Your task to perform on an android device: turn off notifications in google photos Image 0: 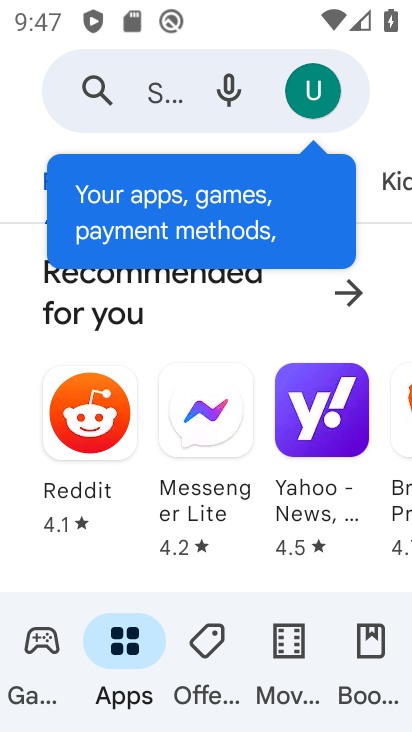
Step 0: press home button
Your task to perform on an android device: turn off notifications in google photos Image 1: 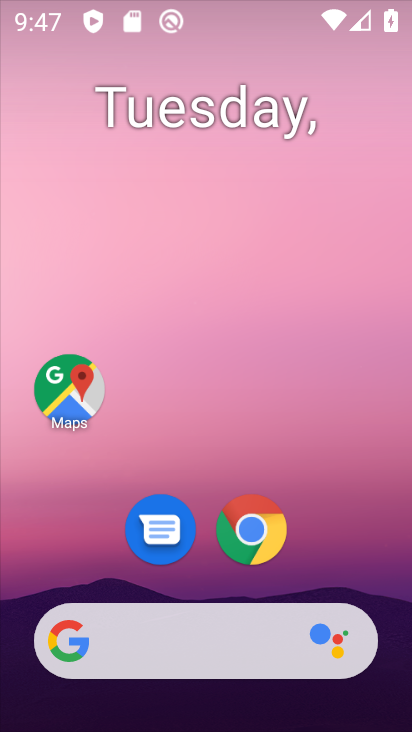
Step 1: click (110, 75)
Your task to perform on an android device: turn off notifications in google photos Image 2: 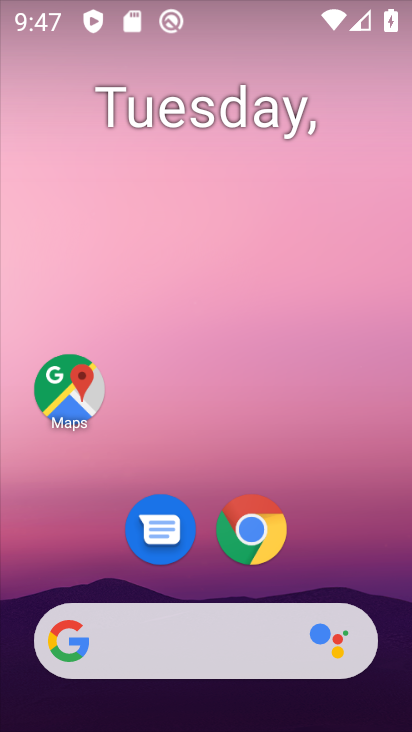
Step 2: drag from (208, 382) to (234, 64)
Your task to perform on an android device: turn off notifications in google photos Image 3: 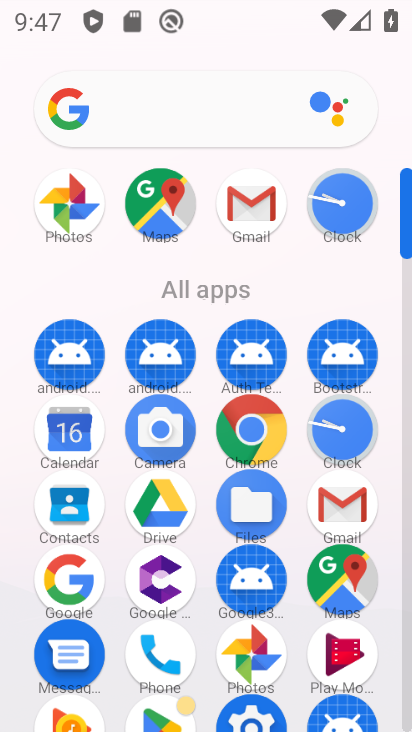
Step 3: click (68, 193)
Your task to perform on an android device: turn off notifications in google photos Image 4: 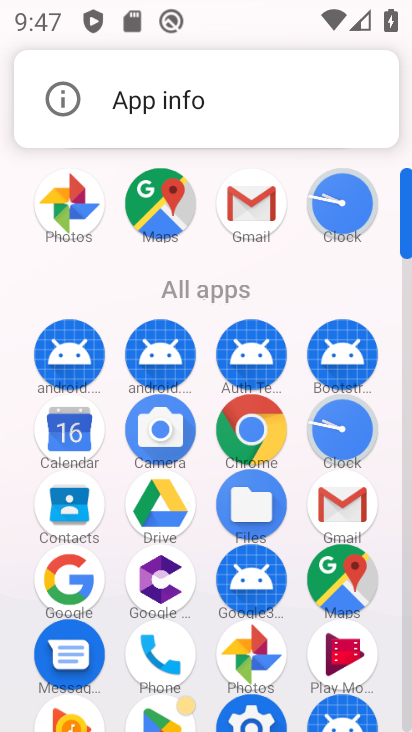
Step 4: click (67, 236)
Your task to perform on an android device: turn off notifications in google photos Image 5: 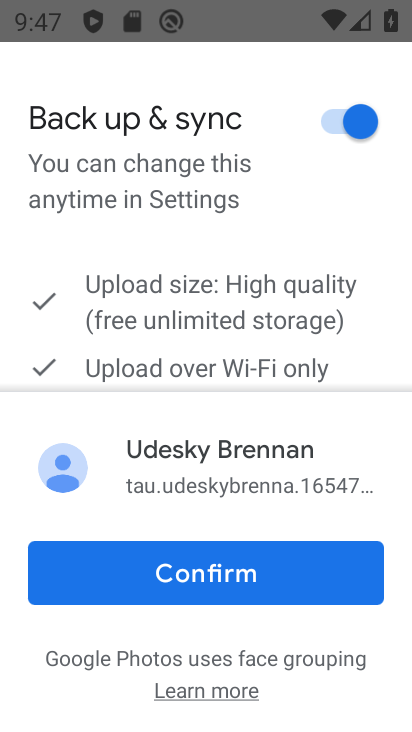
Step 5: click (206, 570)
Your task to perform on an android device: turn off notifications in google photos Image 6: 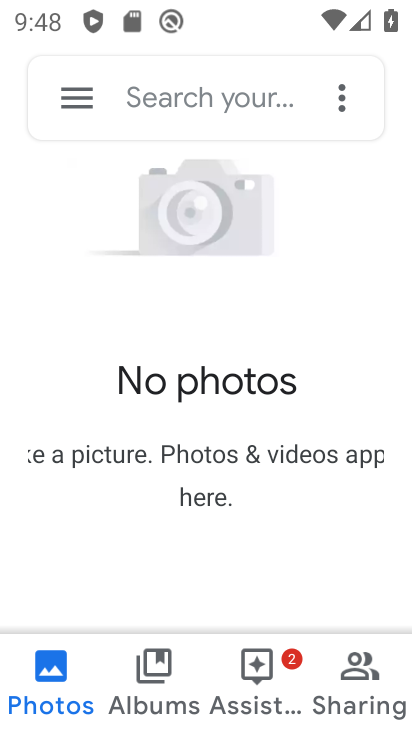
Step 6: click (65, 89)
Your task to perform on an android device: turn off notifications in google photos Image 7: 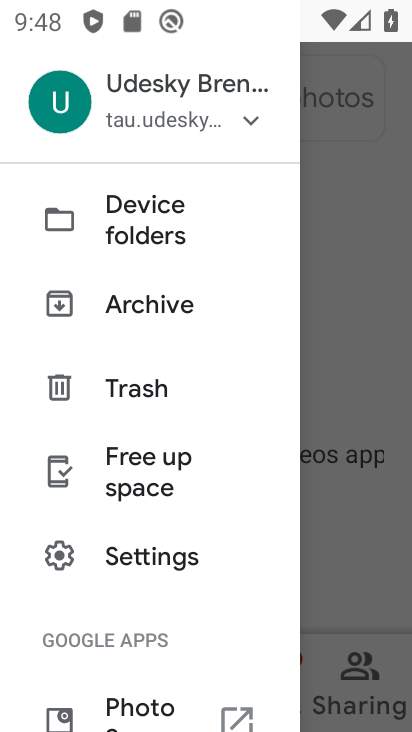
Step 7: drag from (181, 537) to (209, 180)
Your task to perform on an android device: turn off notifications in google photos Image 8: 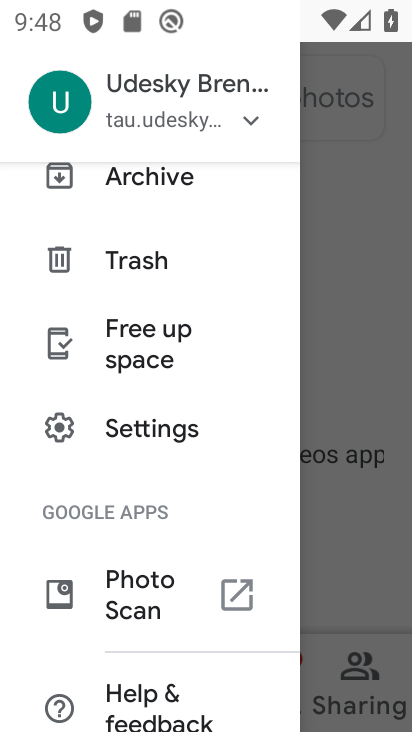
Step 8: drag from (154, 624) to (142, 203)
Your task to perform on an android device: turn off notifications in google photos Image 9: 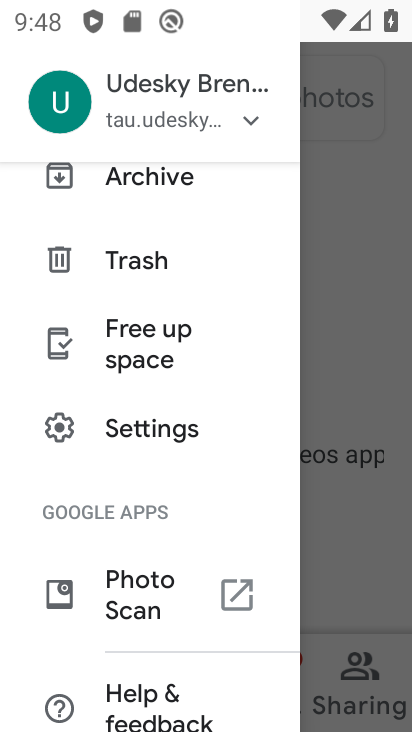
Step 9: click (121, 420)
Your task to perform on an android device: turn off notifications in google photos Image 10: 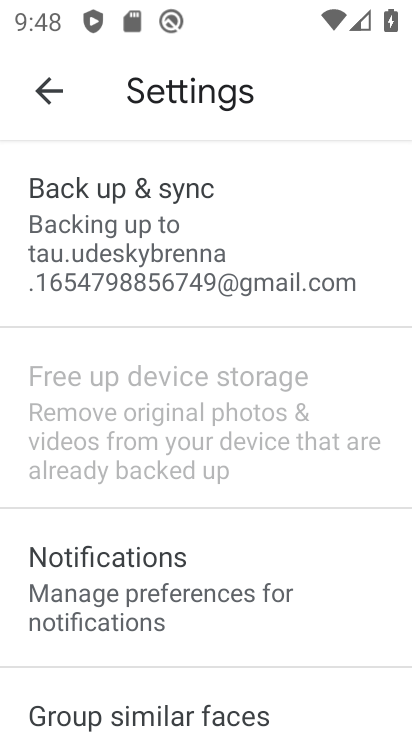
Step 10: drag from (141, 463) to (145, 215)
Your task to perform on an android device: turn off notifications in google photos Image 11: 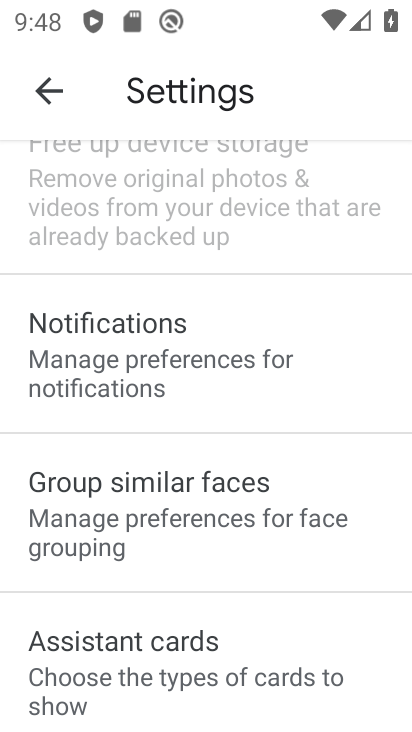
Step 11: click (115, 340)
Your task to perform on an android device: turn off notifications in google photos Image 12: 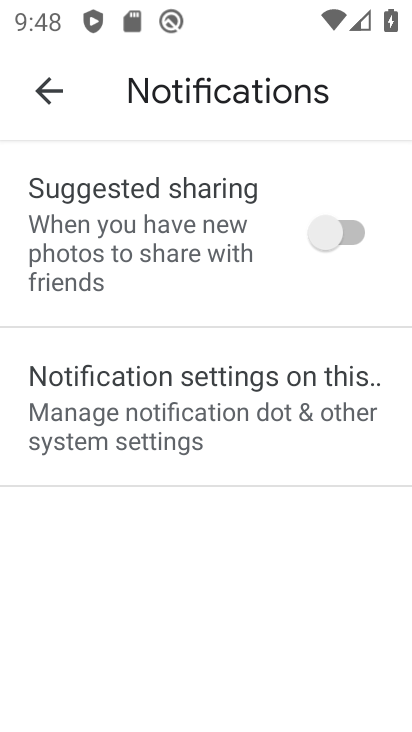
Step 12: click (162, 392)
Your task to perform on an android device: turn off notifications in google photos Image 13: 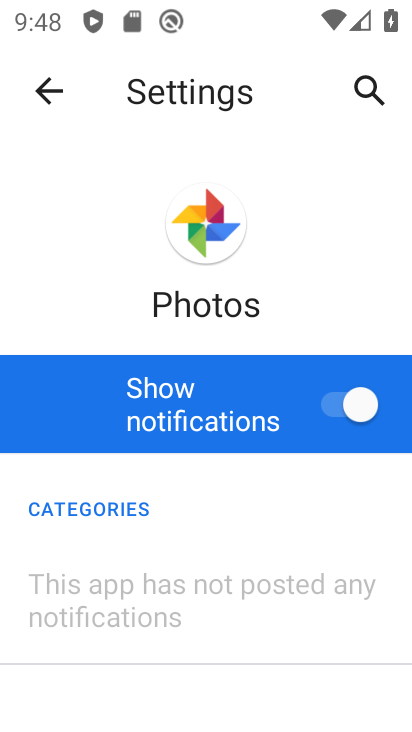
Step 13: click (346, 398)
Your task to perform on an android device: turn off notifications in google photos Image 14: 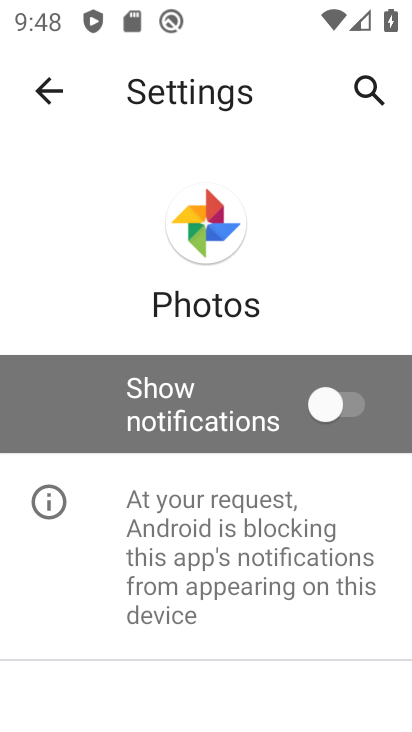
Step 14: task complete